Your task to perform on an android device: Go to Yahoo.com Image 0: 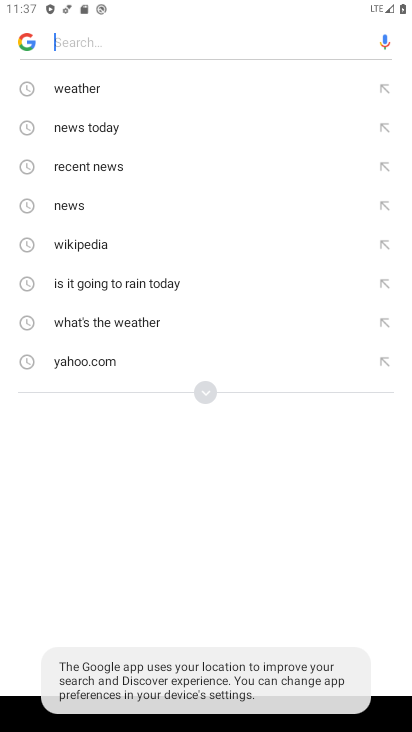
Step 0: press home button
Your task to perform on an android device: Go to Yahoo.com Image 1: 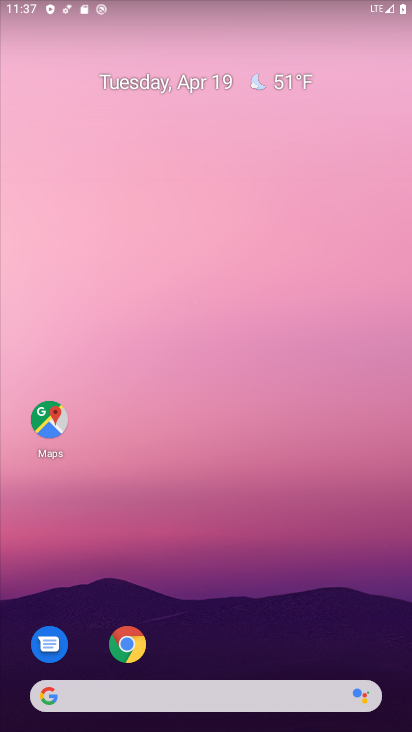
Step 1: click (125, 642)
Your task to perform on an android device: Go to Yahoo.com Image 2: 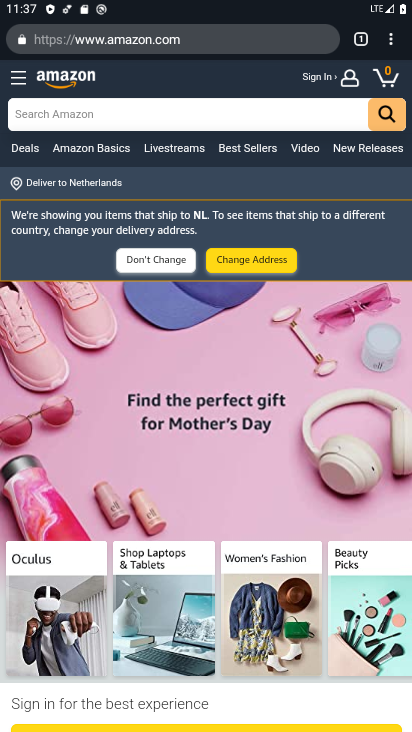
Step 2: click (127, 38)
Your task to perform on an android device: Go to Yahoo.com Image 3: 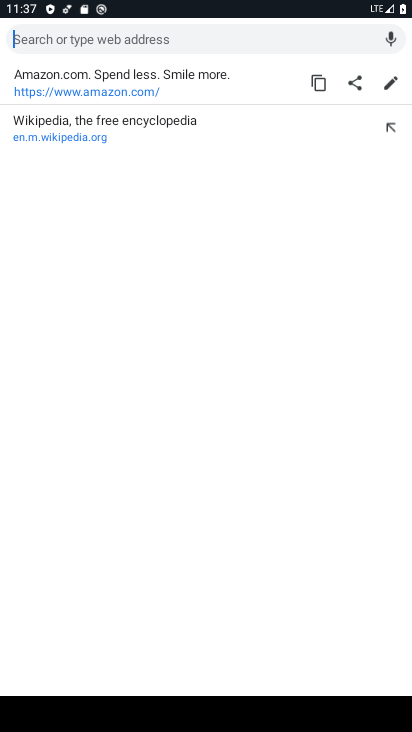
Step 3: type "Yahoo.com"
Your task to perform on an android device: Go to Yahoo.com Image 4: 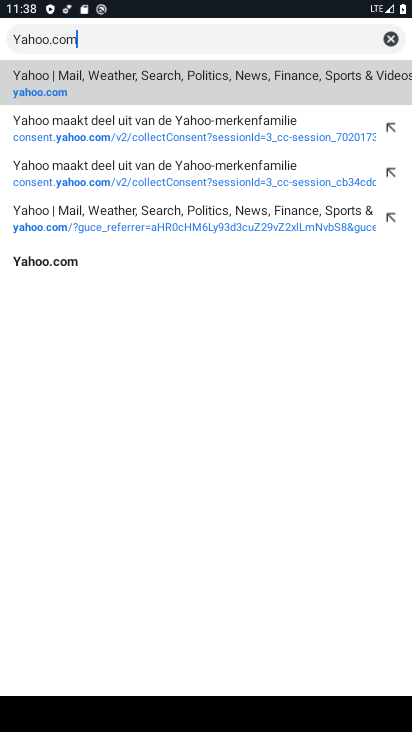
Step 4: type ""
Your task to perform on an android device: Go to Yahoo.com Image 5: 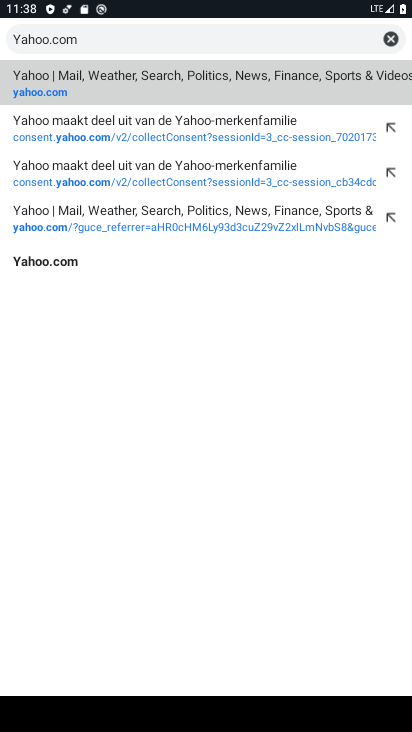
Step 5: click (129, 79)
Your task to perform on an android device: Go to Yahoo.com Image 6: 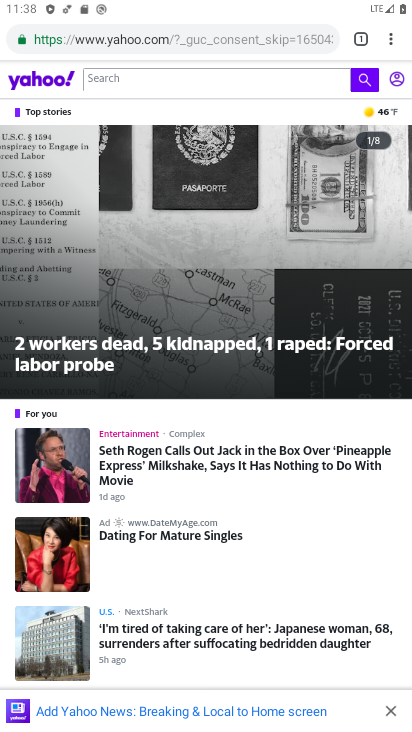
Step 6: task complete